Your task to perform on an android device: Go to Google maps Image 0: 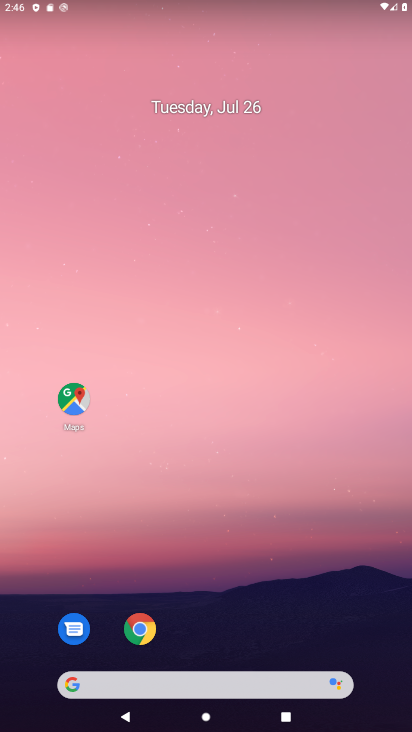
Step 0: click (59, 412)
Your task to perform on an android device: Go to Google maps Image 1: 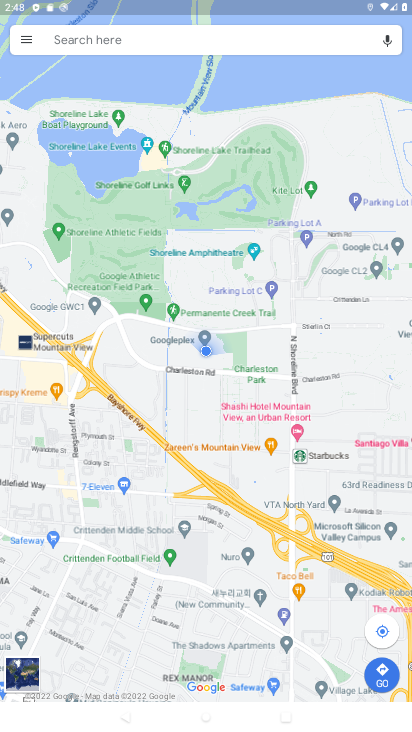
Step 1: task complete